Your task to perform on an android device: Open battery settings Image 0: 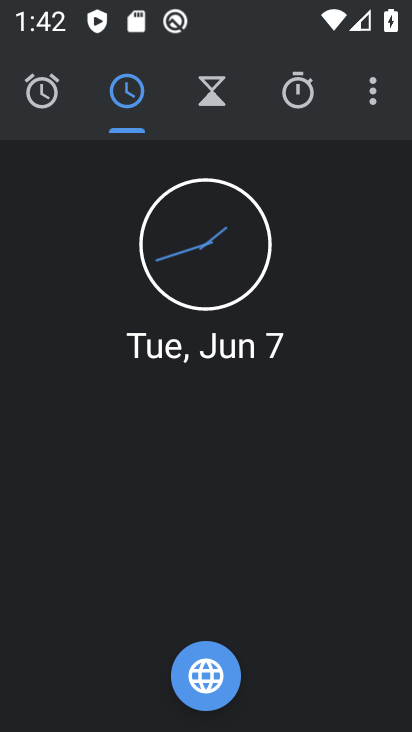
Step 0: press home button
Your task to perform on an android device: Open battery settings Image 1: 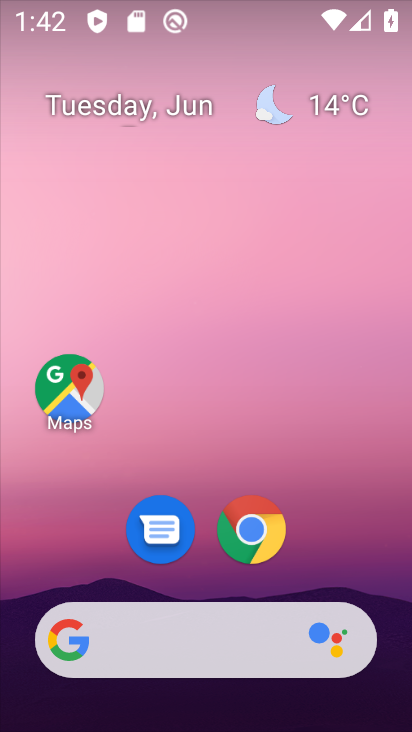
Step 1: drag from (205, 574) to (149, 95)
Your task to perform on an android device: Open battery settings Image 2: 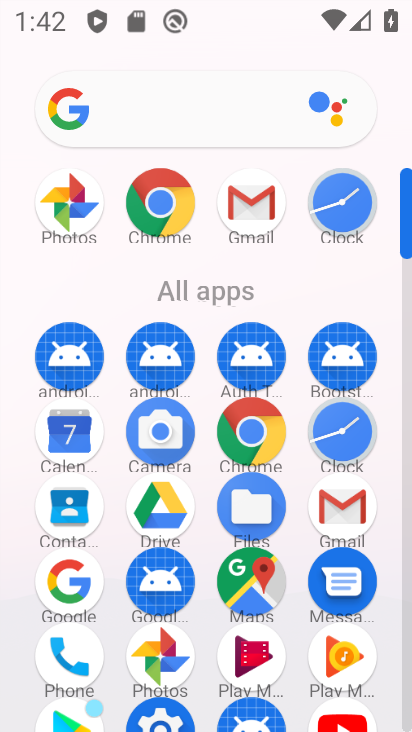
Step 2: click (161, 720)
Your task to perform on an android device: Open battery settings Image 3: 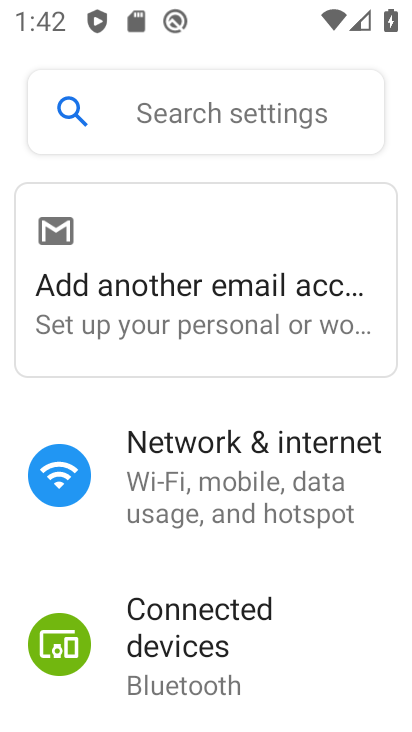
Step 3: drag from (229, 597) to (195, 101)
Your task to perform on an android device: Open battery settings Image 4: 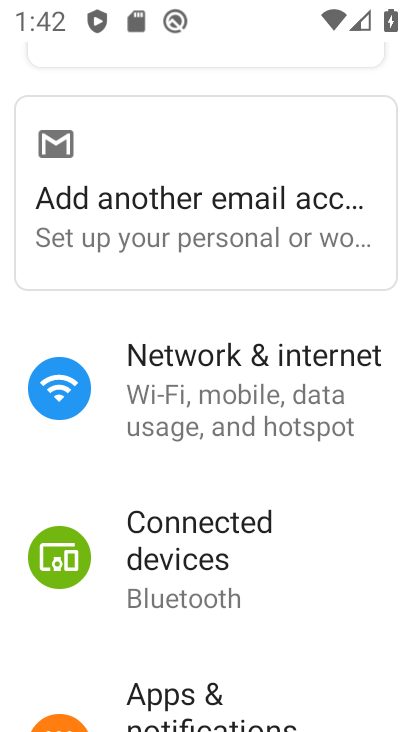
Step 4: drag from (208, 616) to (190, 241)
Your task to perform on an android device: Open battery settings Image 5: 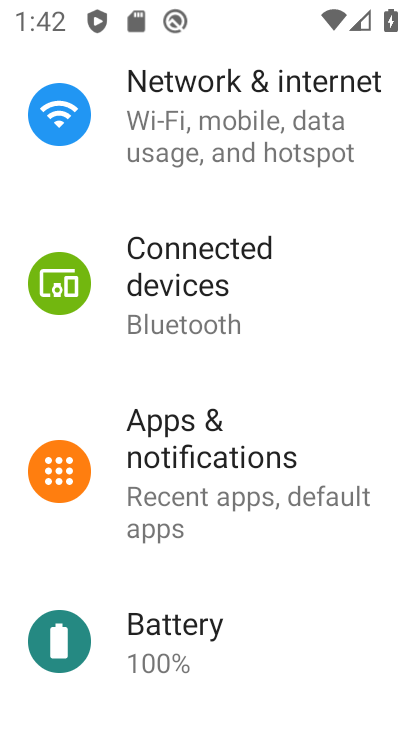
Step 5: click (241, 647)
Your task to perform on an android device: Open battery settings Image 6: 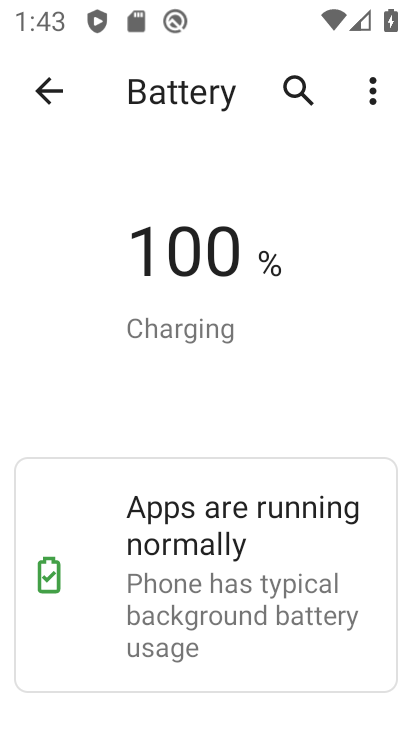
Step 6: click (362, 97)
Your task to perform on an android device: Open battery settings Image 7: 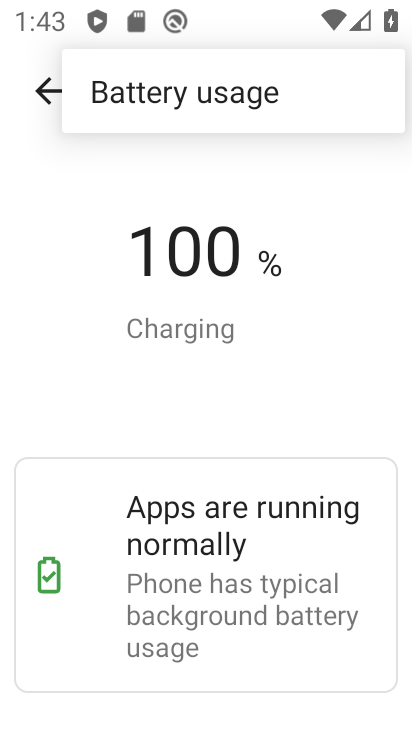
Step 7: task complete